Your task to perform on an android device: find snoozed emails in the gmail app Image 0: 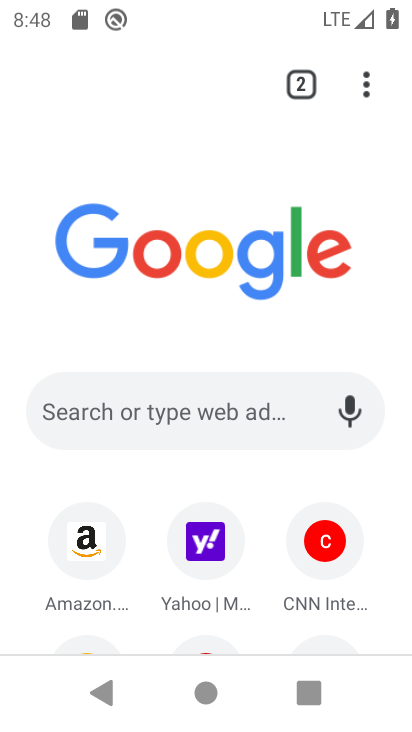
Step 0: press home button
Your task to perform on an android device: find snoozed emails in the gmail app Image 1: 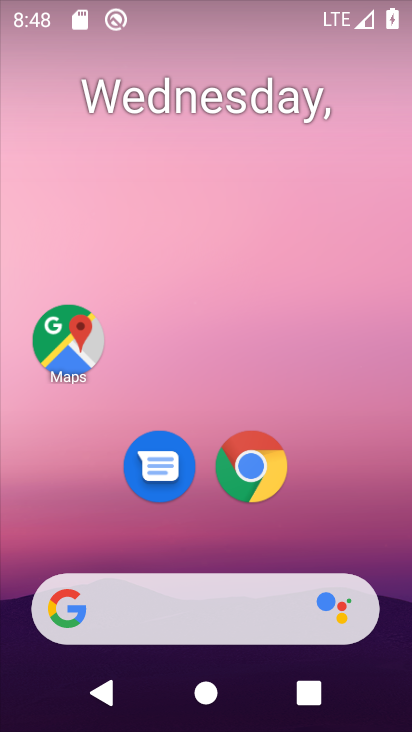
Step 1: drag from (240, 728) to (231, 232)
Your task to perform on an android device: find snoozed emails in the gmail app Image 2: 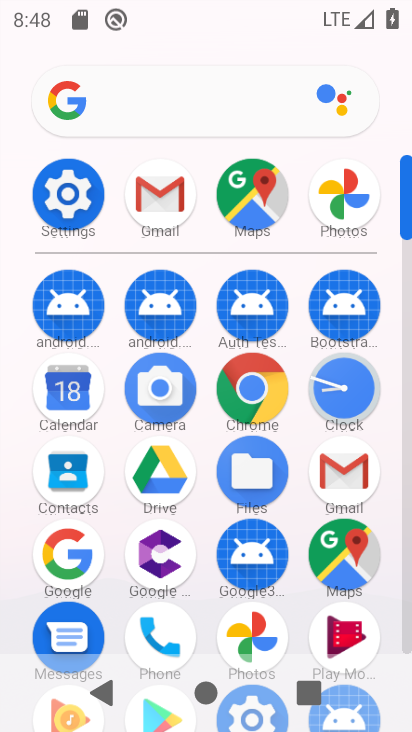
Step 2: click (337, 474)
Your task to perform on an android device: find snoozed emails in the gmail app Image 3: 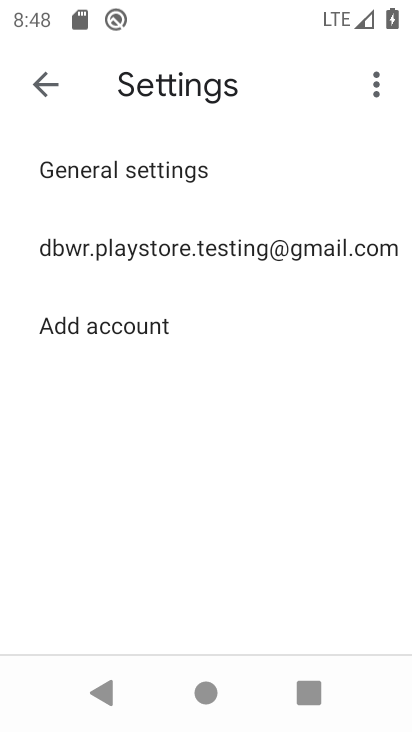
Step 3: click (44, 84)
Your task to perform on an android device: find snoozed emails in the gmail app Image 4: 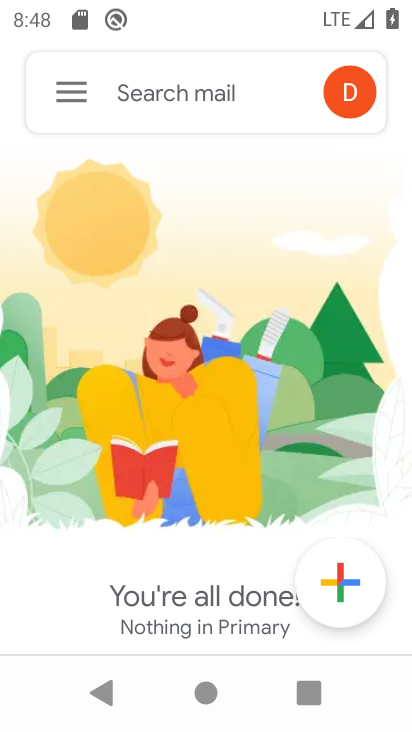
Step 4: click (66, 90)
Your task to perform on an android device: find snoozed emails in the gmail app Image 5: 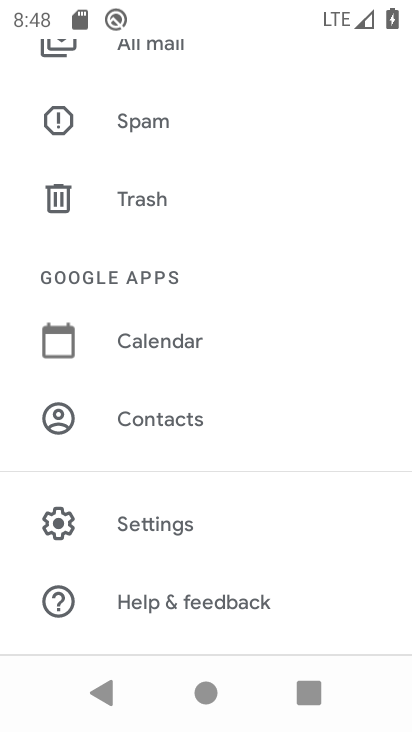
Step 5: drag from (157, 190) to (157, 518)
Your task to perform on an android device: find snoozed emails in the gmail app Image 6: 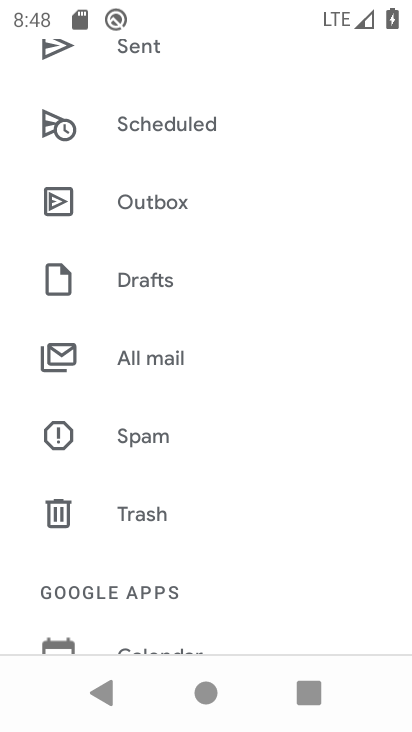
Step 6: drag from (178, 184) to (178, 398)
Your task to perform on an android device: find snoozed emails in the gmail app Image 7: 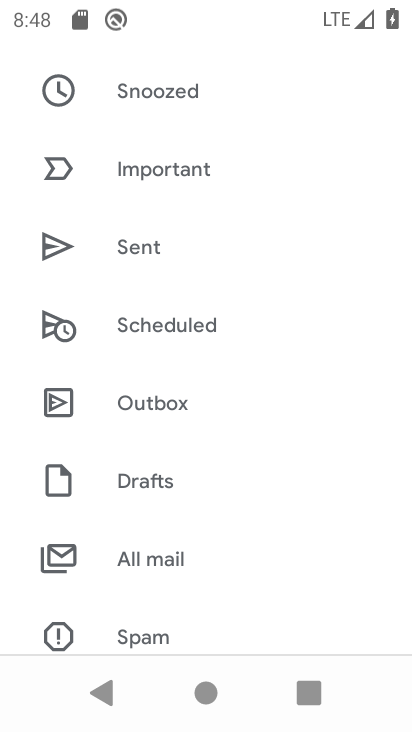
Step 7: click (146, 90)
Your task to perform on an android device: find snoozed emails in the gmail app Image 8: 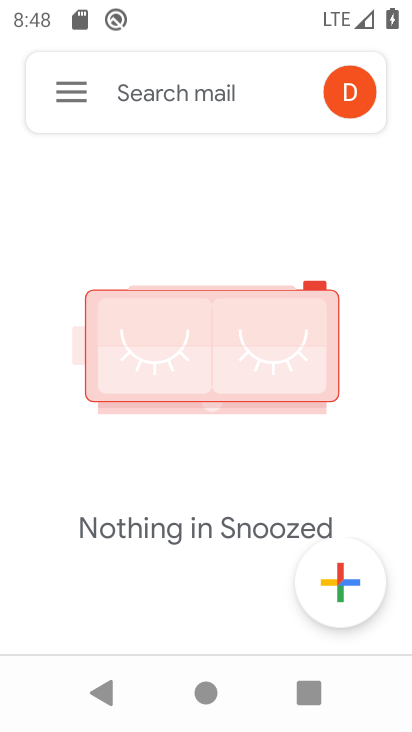
Step 8: task complete